Your task to perform on an android device: turn on priority inbox in the gmail app Image 0: 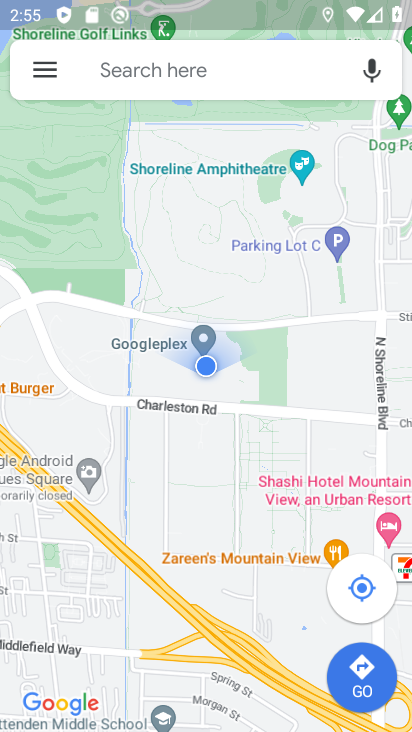
Step 0: press home button
Your task to perform on an android device: turn on priority inbox in the gmail app Image 1: 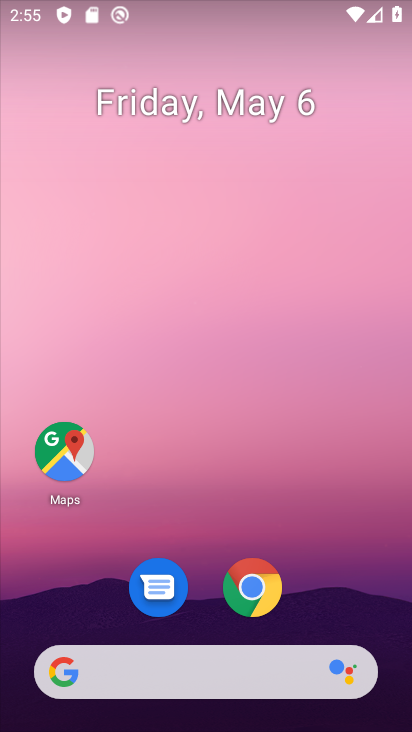
Step 1: drag from (231, 512) to (236, 39)
Your task to perform on an android device: turn on priority inbox in the gmail app Image 2: 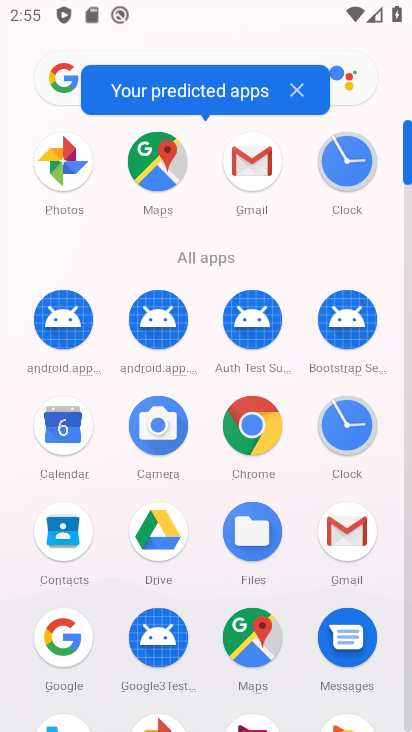
Step 2: click (251, 158)
Your task to perform on an android device: turn on priority inbox in the gmail app Image 3: 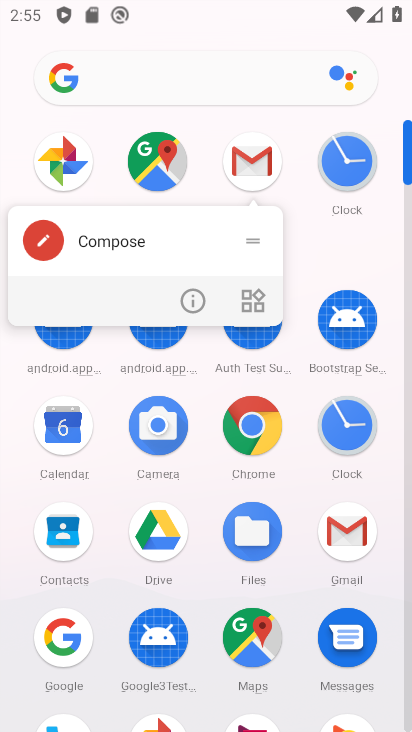
Step 3: click (251, 158)
Your task to perform on an android device: turn on priority inbox in the gmail app Image 4: 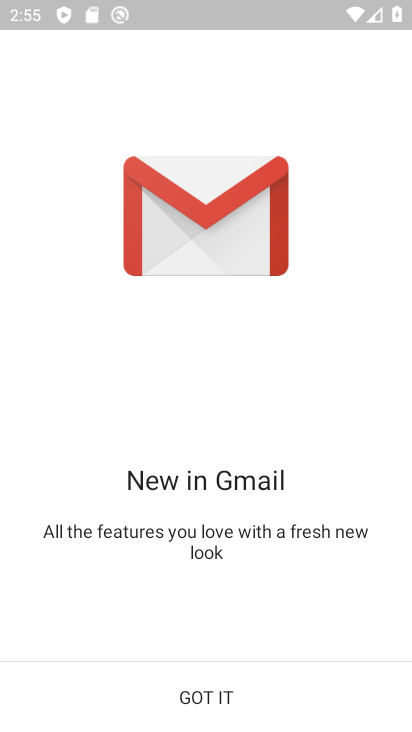
Step 4: click (282, 696)
Your task to perform on an android device: turn on priority inbox in the gmail app Image 5: 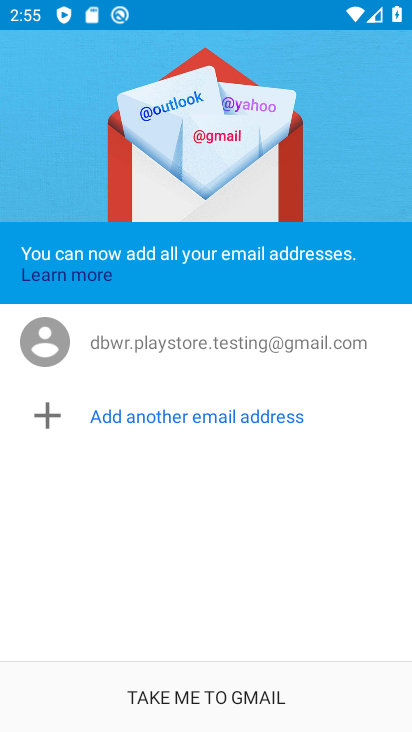
Step 5: click (282, 694)
Your task to perform on an android device: turn on priority inbox in the gmail app Image 6: 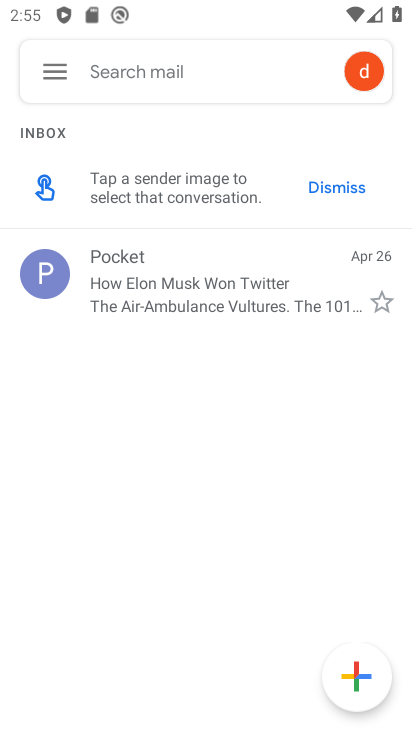
Step 6: click (55, 70)
Your task to perform on an android device: turn on priority inbox in the gmail app Image 7: 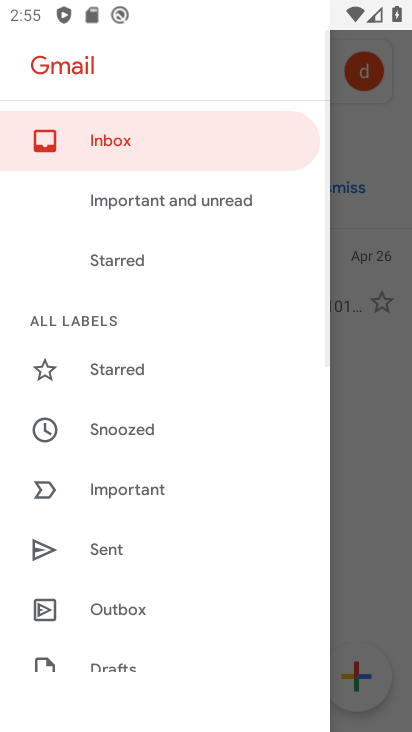
Step 7: drag from (198, 578) to (159, 177)
Your task to perform on an android device: turn on priority inbox in the gmail app Image 8: 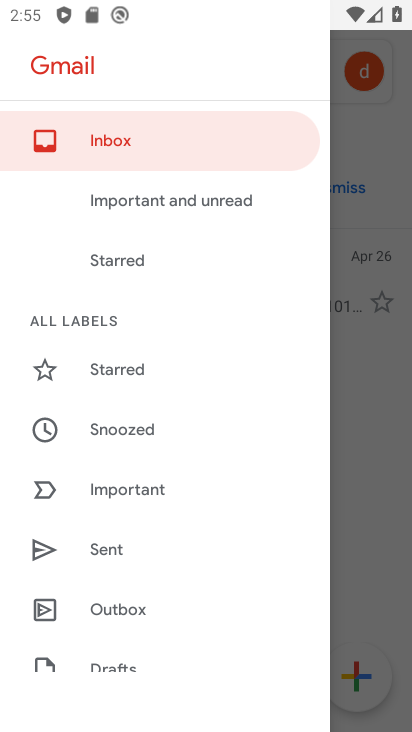
Step 8: drag from (140, 630) to (216, 161)
Your task to perform on an android device: turn on priority inbox in the gmail app Image 9: 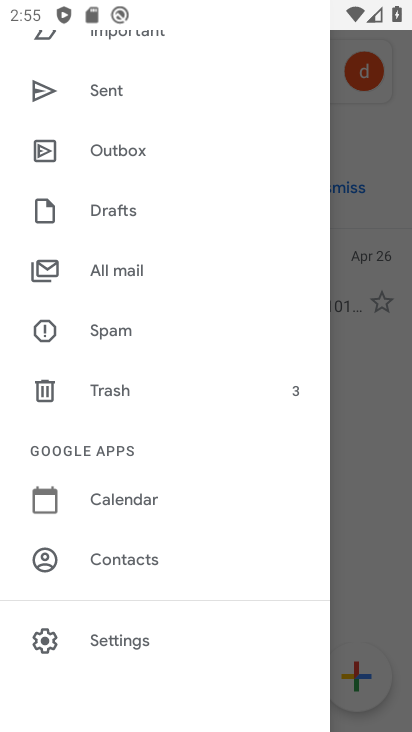
Step 9: click (127, 634)
Your task to perform on an android device: turn on priority inbox in the gmail app Image 10: 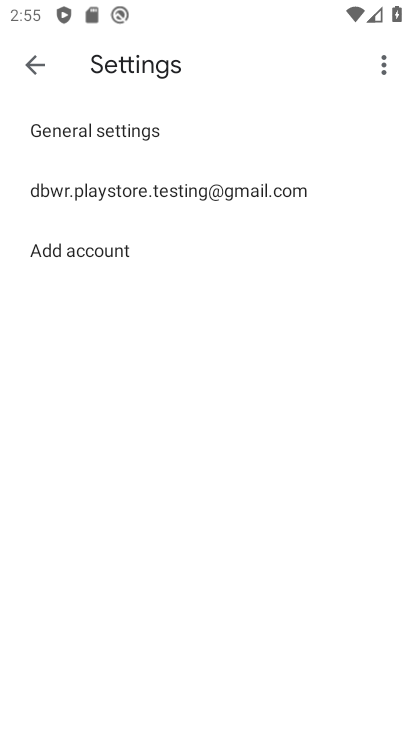
Step 10: click (213, 180)
Your task to perform on an android device: turn on priority inbox in the gmail app Image 11: 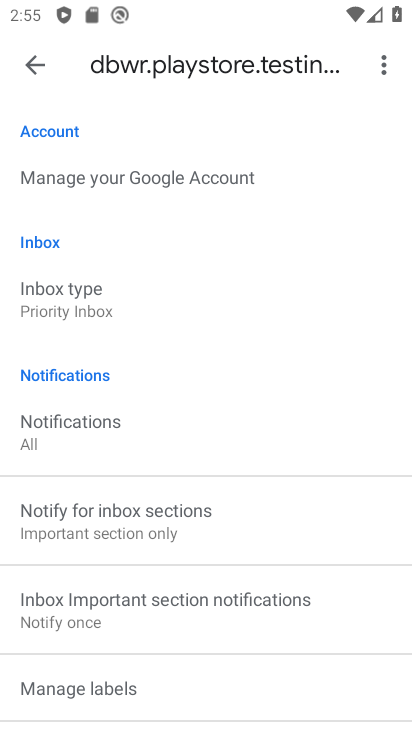
Step 11: click (101, 290)
Your task to perform on an android device: turn on priority inbox in the gmail app Image 12: 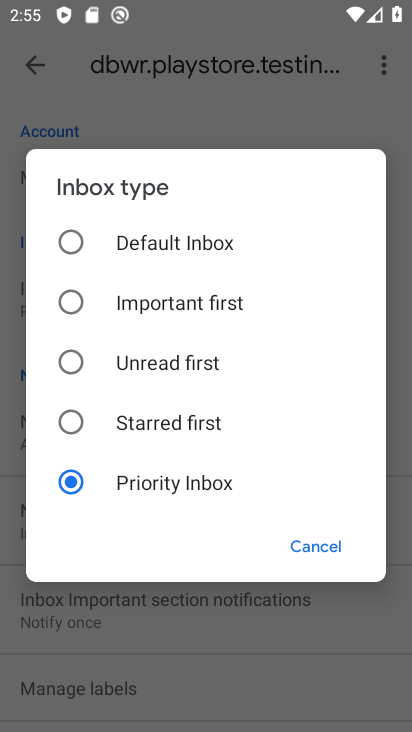
Step 12: click (301, 545)
Your task to perform on an android device: turn on priority inbox in the gmail app Image 13: 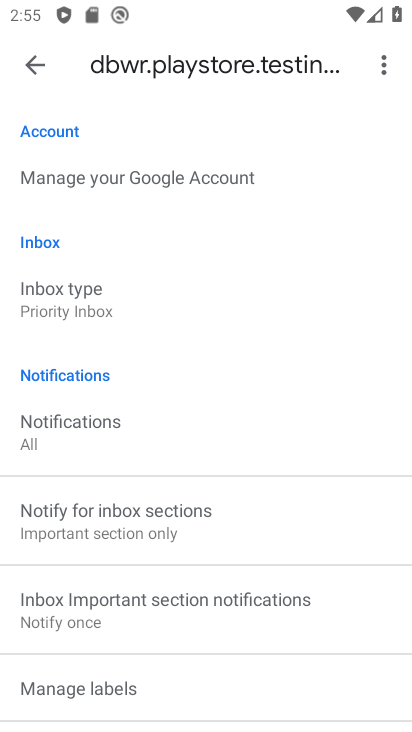
Step 13: task complete